Your task to perform on an android device: Open the stopwatch Image 0: 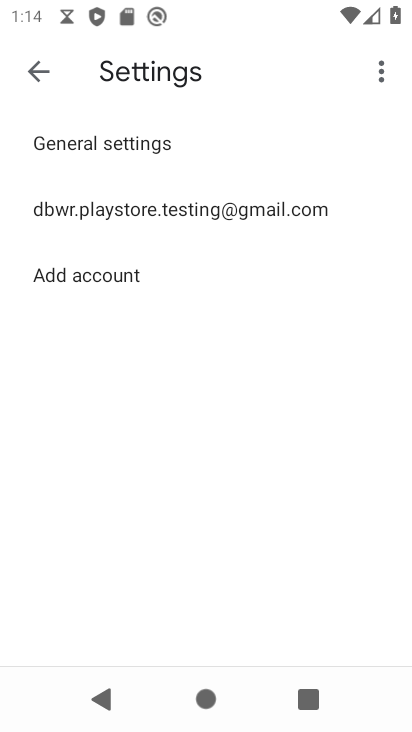
Step 0: press home button
Your task to perform on an android device: Open the stopwatch Image 1: 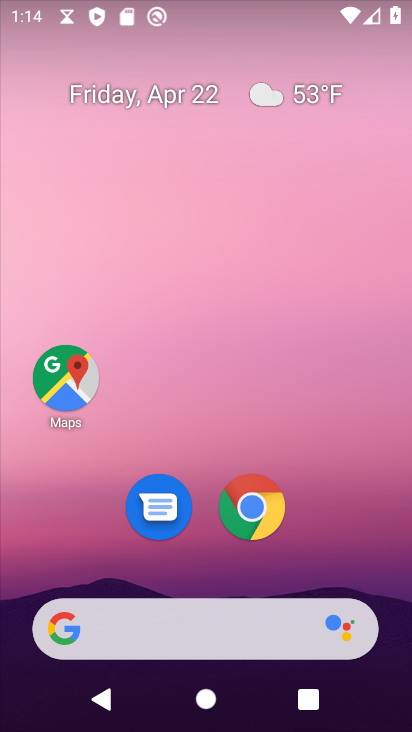
Step 1: drag from (329, 517) to (362, 100)
Your task to perform on an android device: Open the stopwatch Image 2: 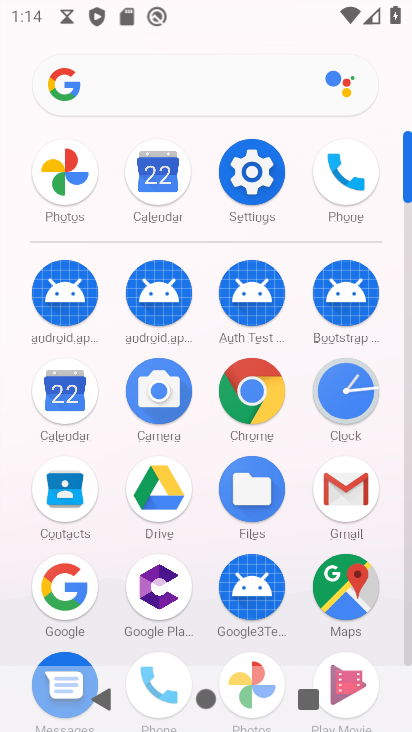
Step 2: click (337, 380)
Your task to perform on an android device: Open the stopwatch Image 3: 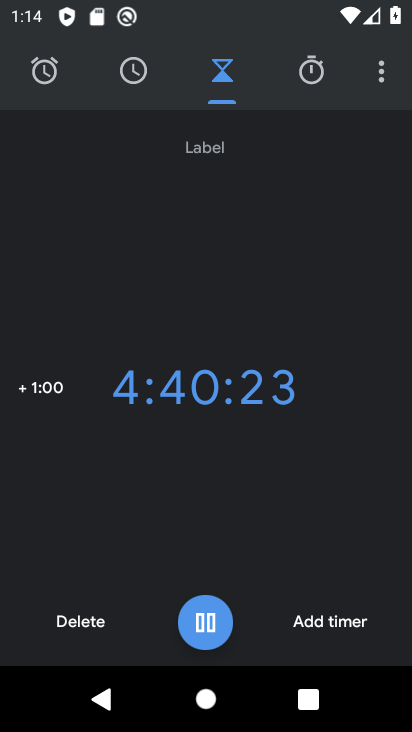
Step 3: click (316, 71)
Your task to perform on an android device: Open the stopwatch Image 4: 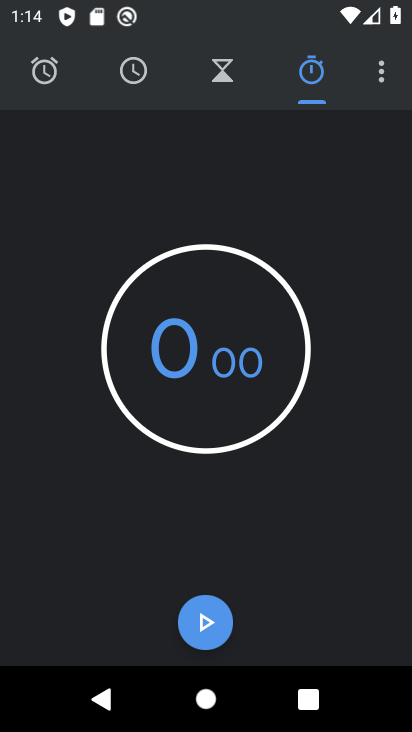
Step 4: task complete